Your task to perform on an android device: What's the weather today? Image 0: 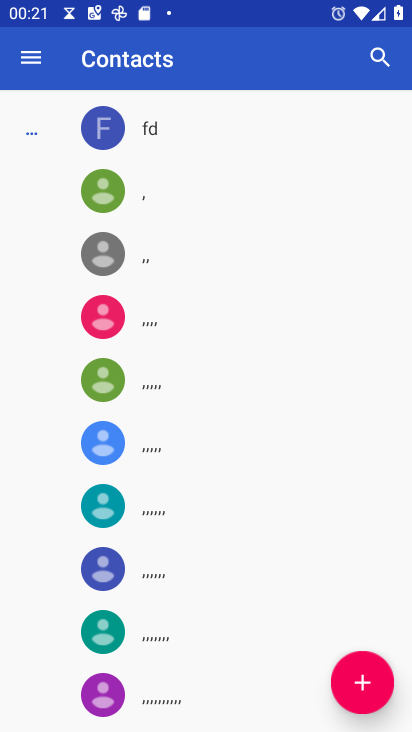
Step 0: press home button
Your task to perform on an android device: What's the weather today? Image 1: 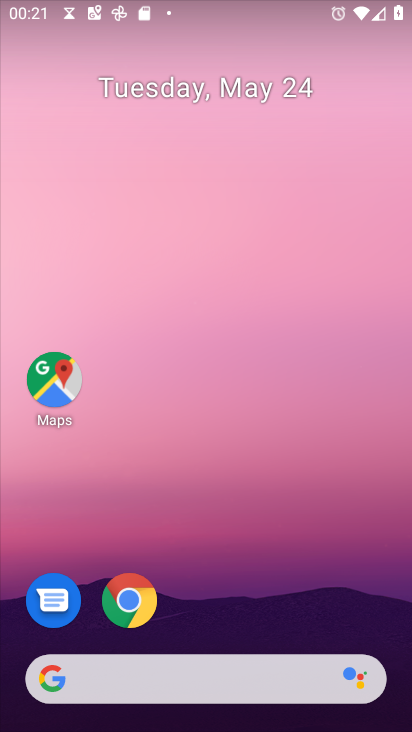
Step 1: drag from (209, 721) to (219, 170)
Your task to perform on an android device: What's the weather today? Image 2: 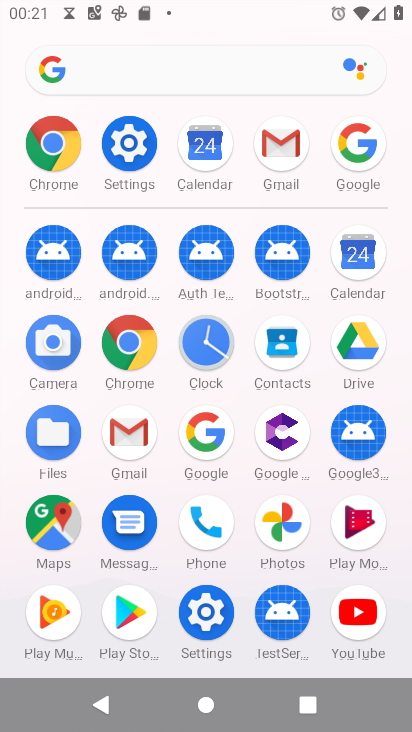
Step 2: click (208, 445)
Your task to perform on an android device: What's the weather today? Image 3: 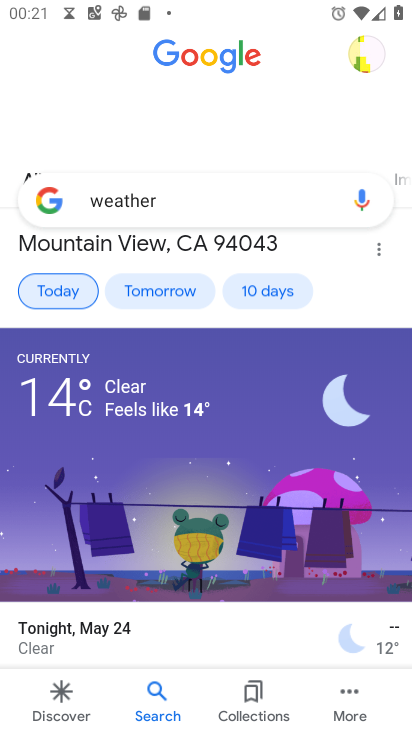
Step 3: click (61, 288)
Your task to perform on an android device: What's the weather today? Image 4: 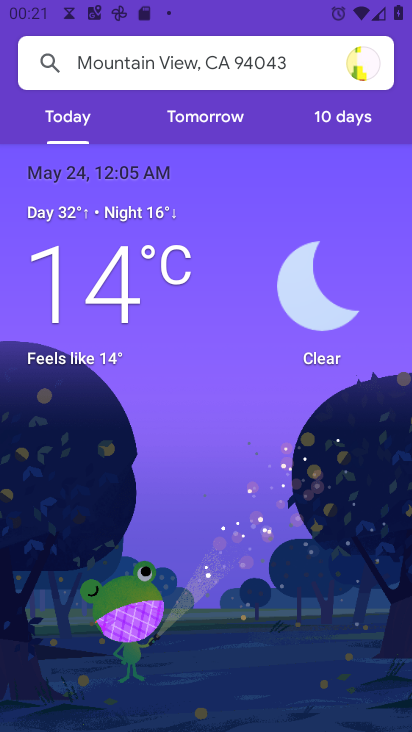
Step 4: task complete